Your task to perform on an android device: empty trash in google photos Image 0: 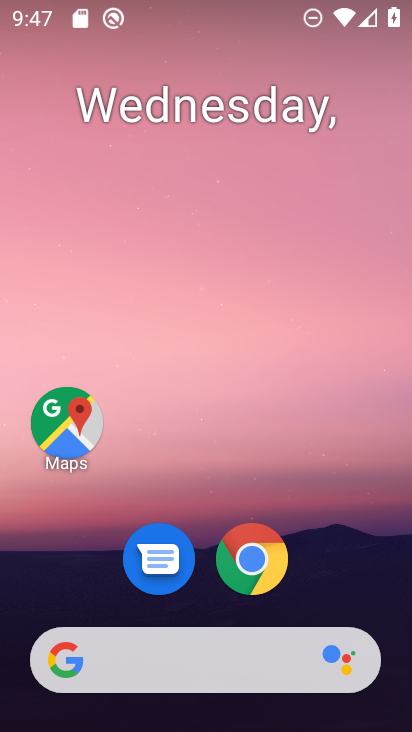
Step 0: drag from (365, 583) to (352, 109)
Your task to perform on an android device: empty trash in google photos Image 1: 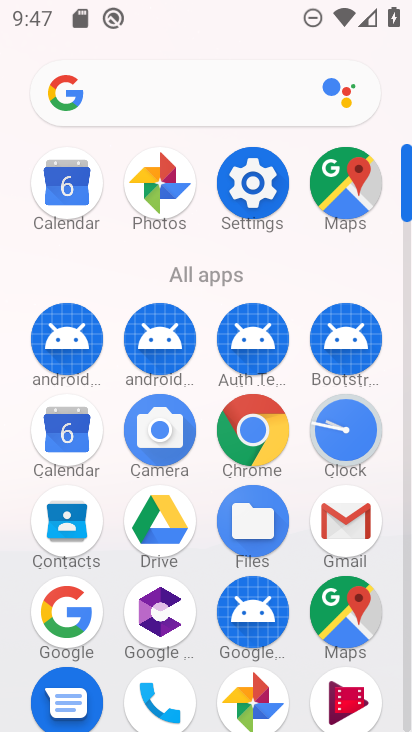
Step 1: click (161, 194)
Your task to perform on an android device: empty trash in google photos Image 2: 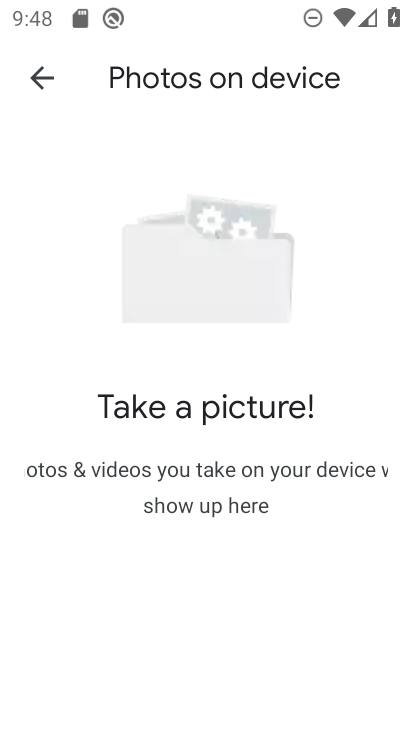
Step 2: click (51, 81)
Your task to perform on an android device: empty trash in google photos Image 3: 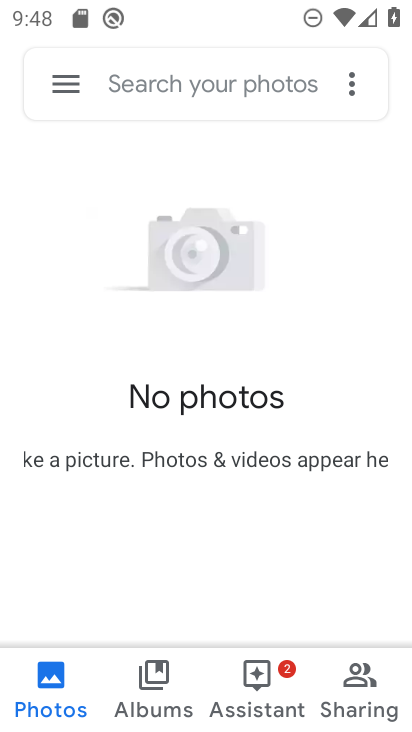
Step 3: click (60, 80)
Your task to perform on an android device: empty trash in google photos Image 4: 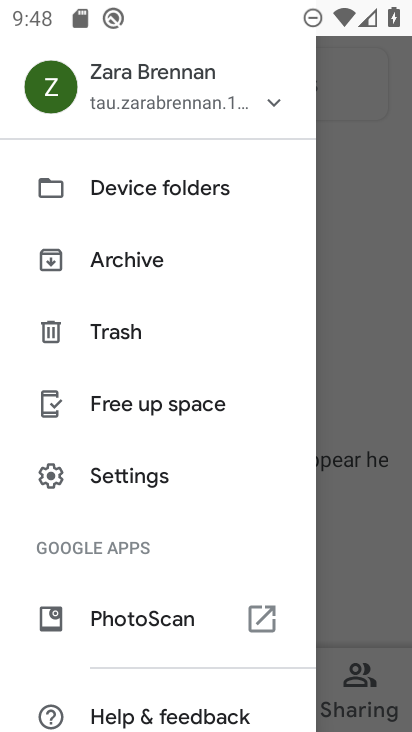
Step 4: click (113, 329)
Your task to perform on an android device: empty trash in google photos Image 5: 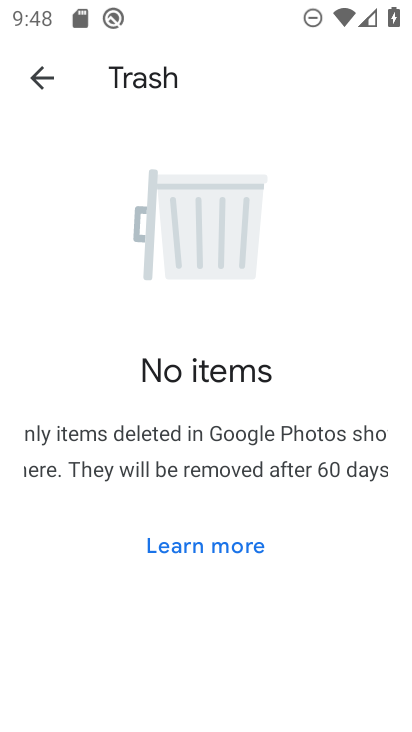
Step 5: task complete